Your task to perform on an android device: toggle priority inbox in the gmail app Image 0: 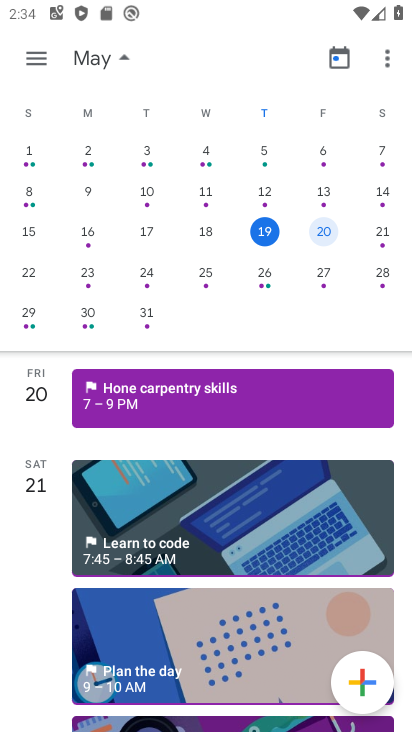
Step 0: press home button
Your task to perform on an android device: toggle priority inbox in the gmail app Image 1: 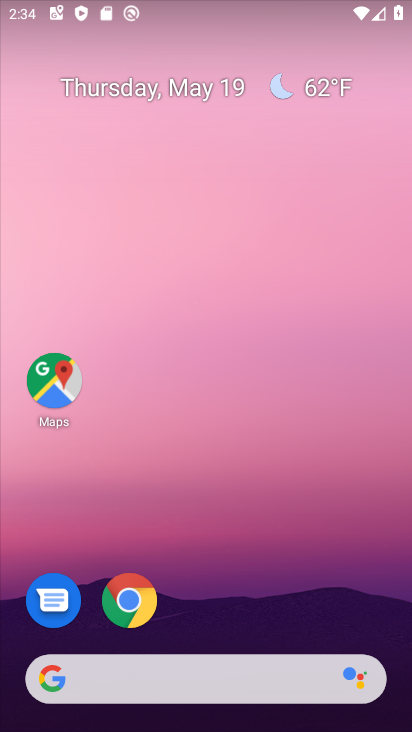
Step 1: drag from (19, 638) to (177, 268)
Your task to perform on an android device: toggle priority inbox in the gmail app Image 2: 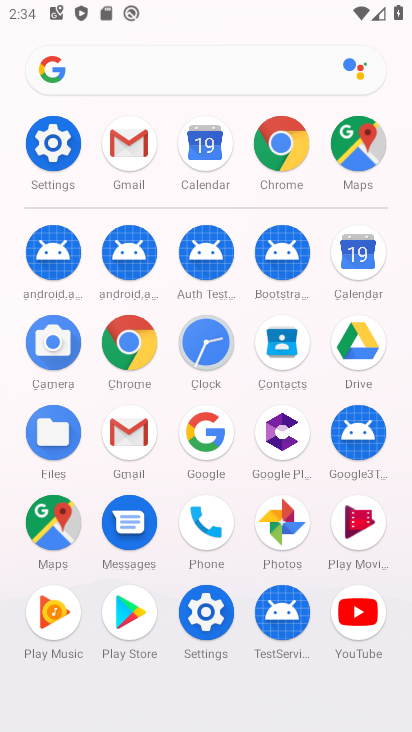
Step 2: click (45, 151)
Your task to perform on an android device: toggle priority inbox in the gmail app Image 3: 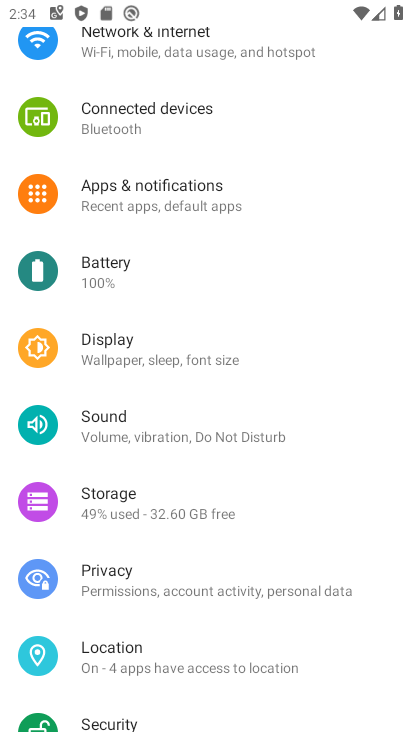
Step 3: press home button
Your task to perform on an android device: toggle priority inbox in the gmail app Image 4: 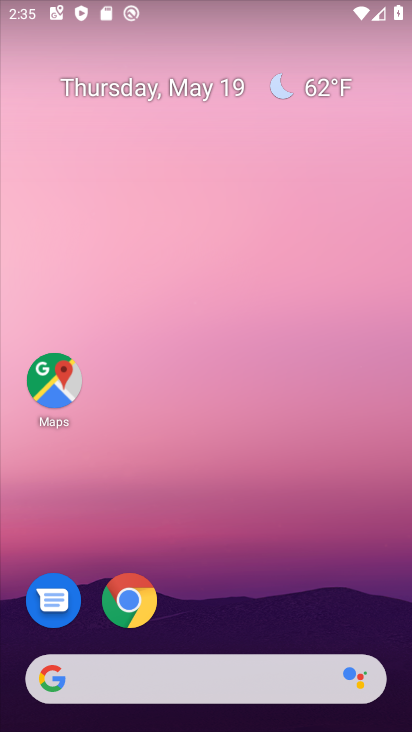
Step 4: drag from (23, 569) to (227, 195)
Your task to perform on an android device: toggle priority inbox in the gmail app Image 5: 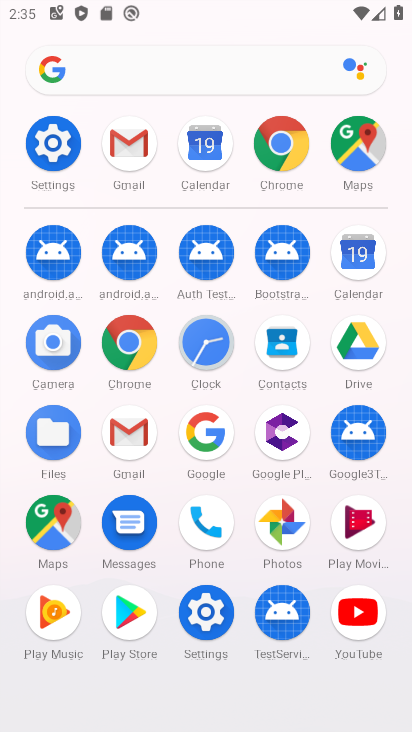
Step 5: click (128, 438)
Your task to perform on an android device: toggle priority inbox in the gmail app Image 6: 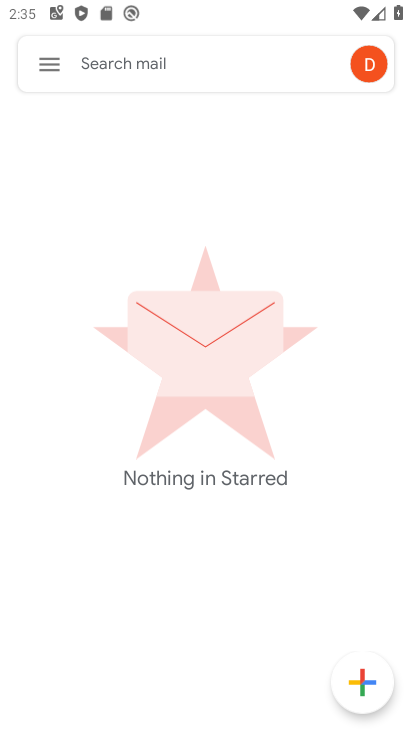
Step 6: click (51, 70)
Your task to perform on an android device: toggle priority inbox in the gmail app Image 7: 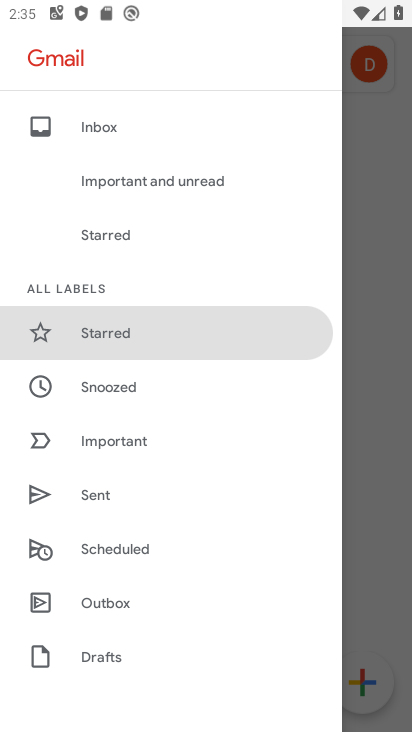
Step 7: drag from (82, 625) to (187, 169)
Your task to perform on an android device: toggle priority inbox in the gmail app Image 8: 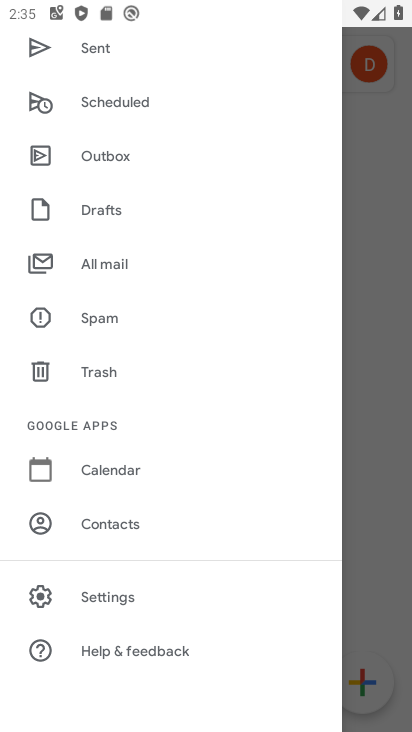
Step 8: click (73, 595)
Your task to perform on an android device: toggle priority inbox in the gmail app Image 9: 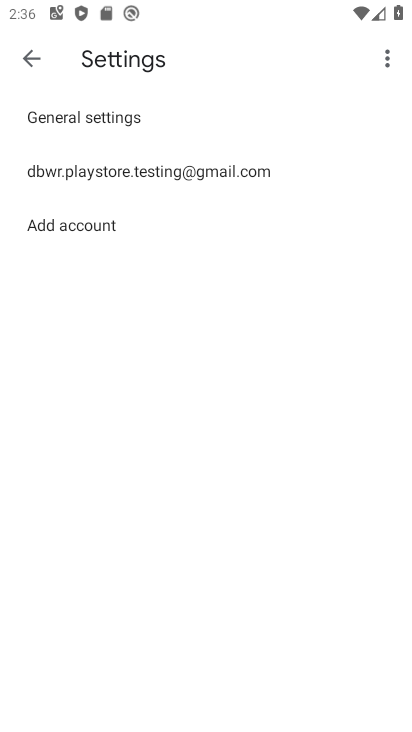
Step 9: click (124, 161)
Your task to perform on an android device: toggle priority inbox in the gmail app Image 10: 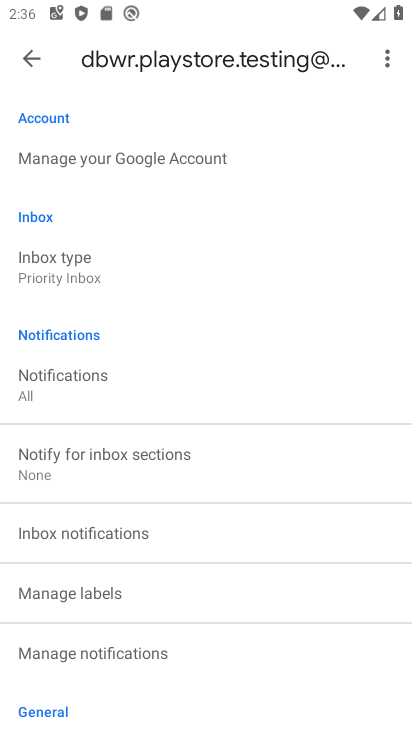
Step 10: drag from (0, 581) to (144, 177)
Your task to perform on an android device: toggle priority inbox in the gmail app Image 11: 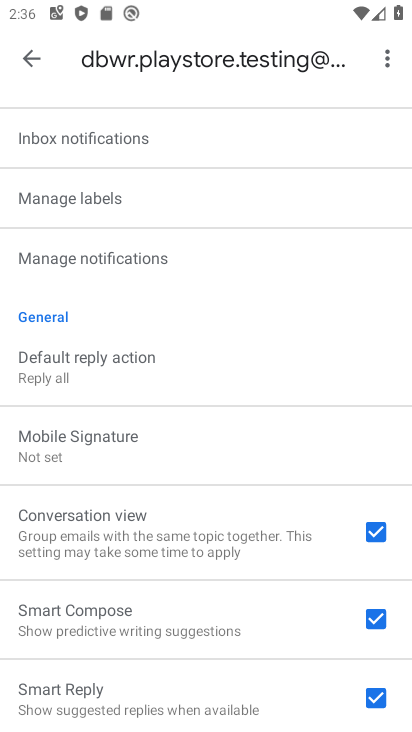
Step 11: drag from (184, 263) to (120, 655)
Your task to perform on an android device: toggle priority inbox in the gmail app Image 12: 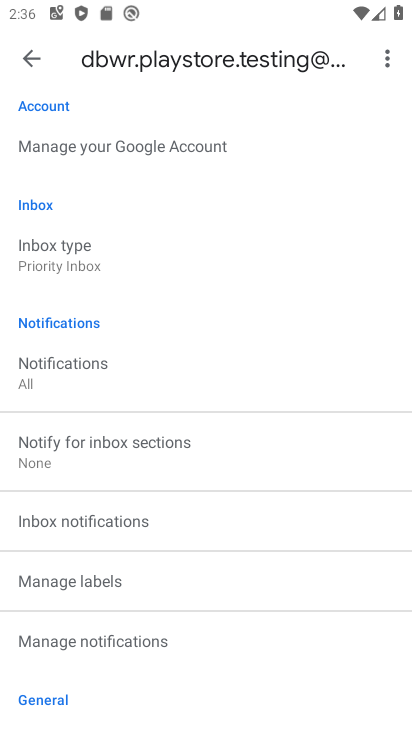
Step 12: click (114, 249)
Your task to perform on an android device: toggle priority inbox in the gmail app Image 13: 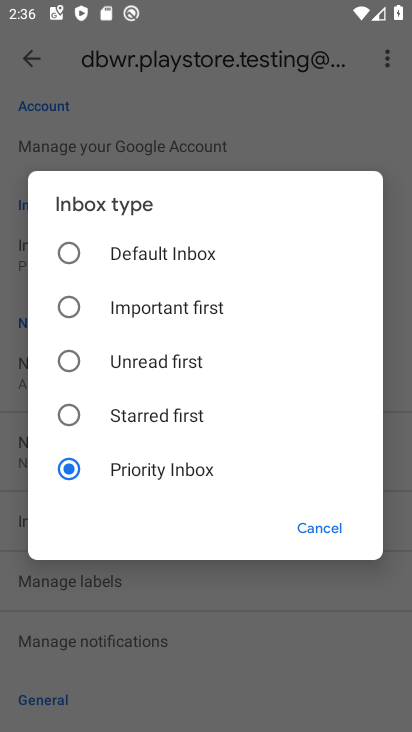
Step 13: click (140, 251)
Your task to perform on an android device: toggle priority inbox in the gmail app Image 14: 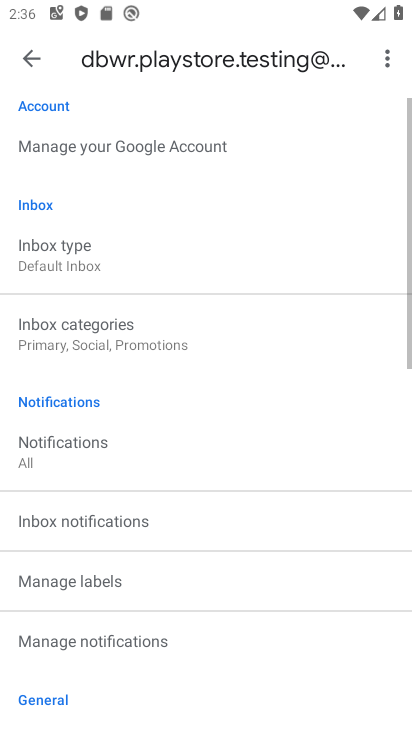
Step 14: task complete